Your task to perform on an android device: make emails show in primary in the gmail app Image 0: 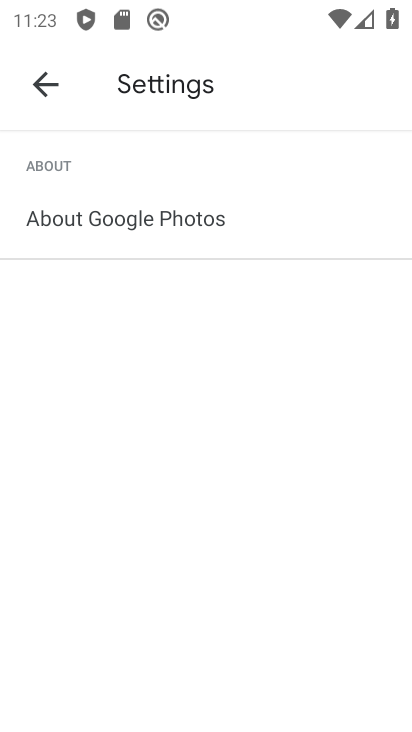
Step 0: click (185, 603)
Your task to perform on an android device: make emails show in primary in the gmail app Image 1: 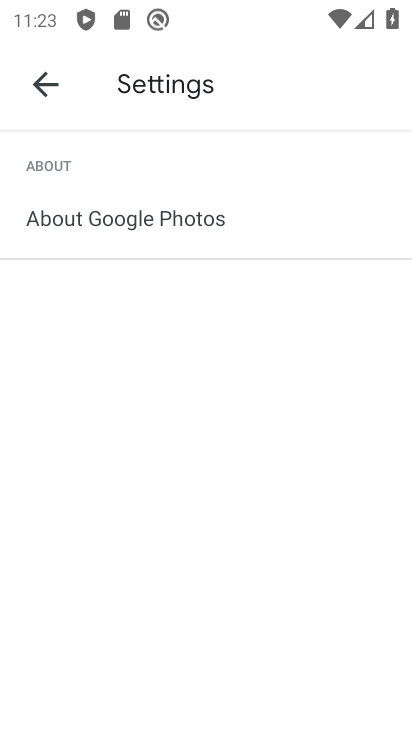
Step 1: press home button
Your task to perform on an android device: make emails show in primary in the gmail app Image 2: 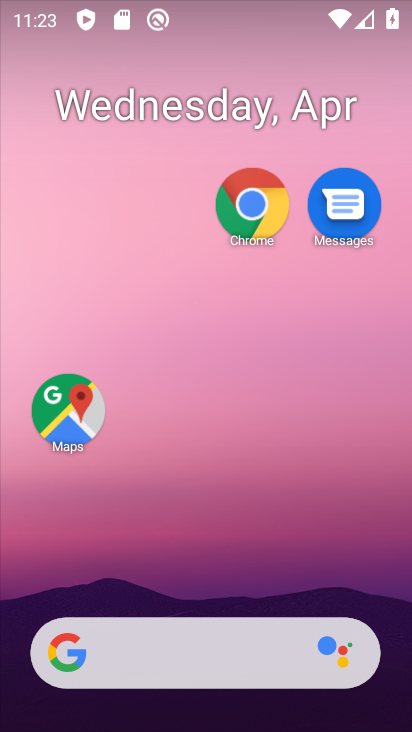
Step 2: drag from (200, 592) to (161, 10)
Your task to perform on an android device: make emails show in primary in the gmail app Image 3: 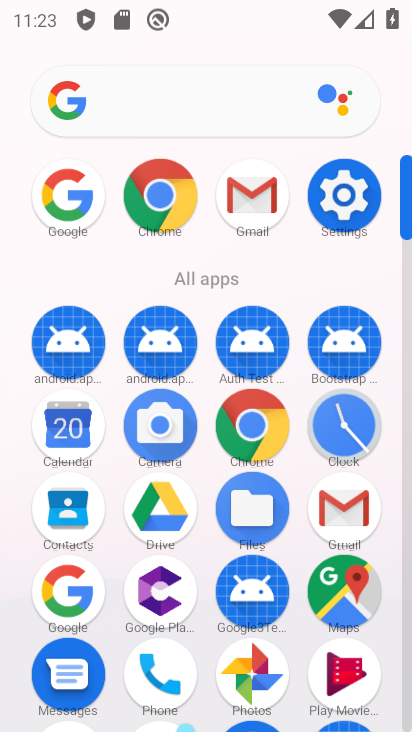
Step 3: click (343, 515)
Your task to perform on an android device: make emails show in primary in the gmail app Image 4: 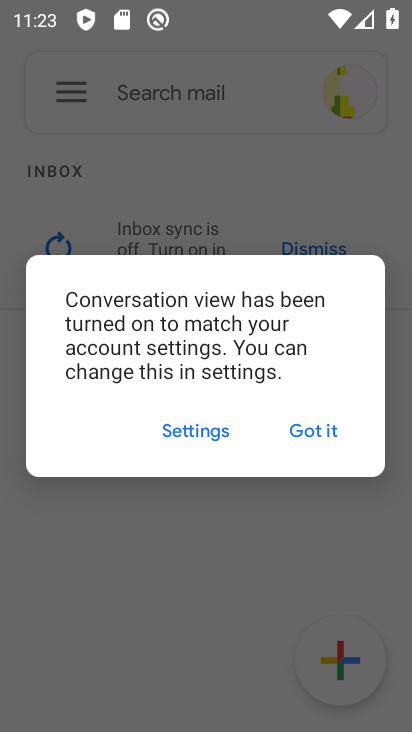
Step 4: click (287, 431)
Your task to perform on an android device: make emails show in primary in the gmail app Image 5: 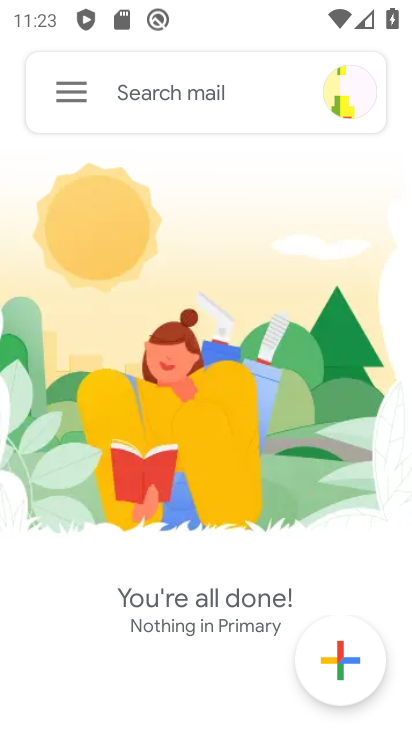
Step 5: click (58, 80)
Your task to perform on an android device: make emails show in primary in the gmail app Image 6: 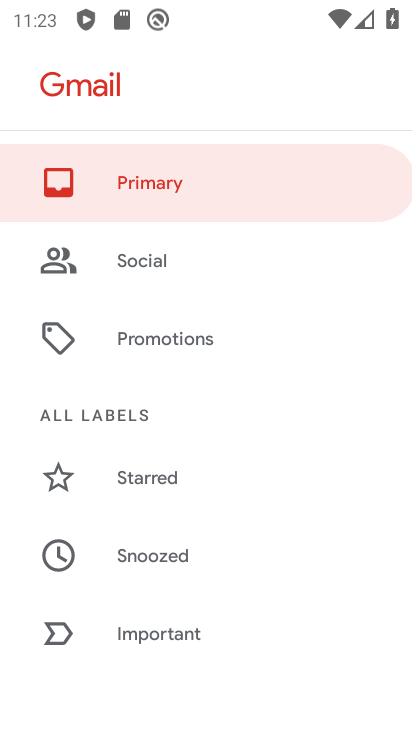
Step 6: click (131, 185)
Your task to perform on an android device: make emails show in primary in the gmail app Image 7: 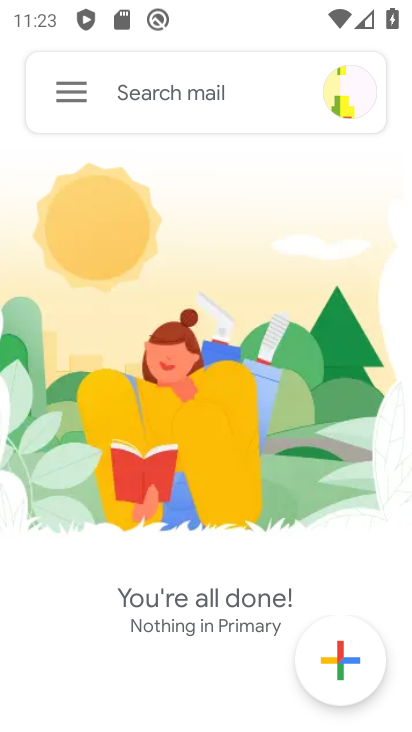
Step 7: task complete